Your task to perform on an android device: see tabs open on other devices in the chrome app Image 0: 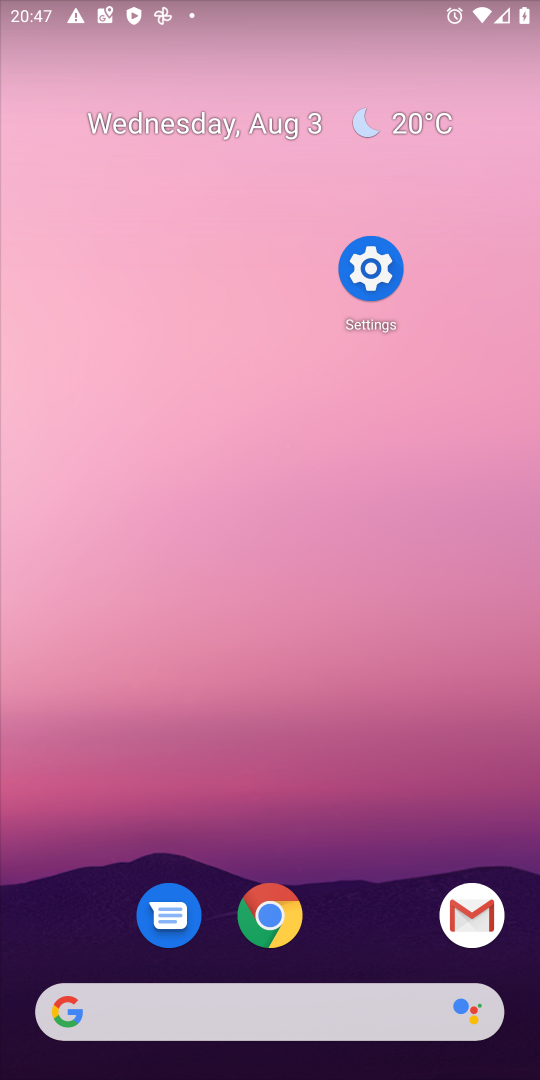
Step 0: press home button
Your task to perform on an android device: see tabs open on other devices in the chrome app Image 1: 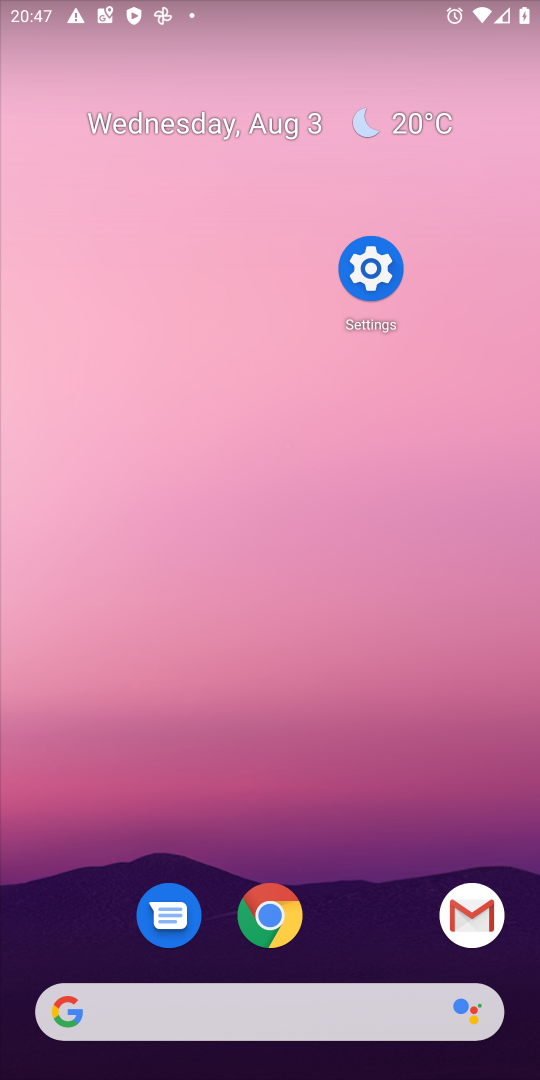
Step 1: drag from (319, 988) to (247, 275)
Your task to perform on an android device: see tabs open on other devices in the chrome app Image 2: 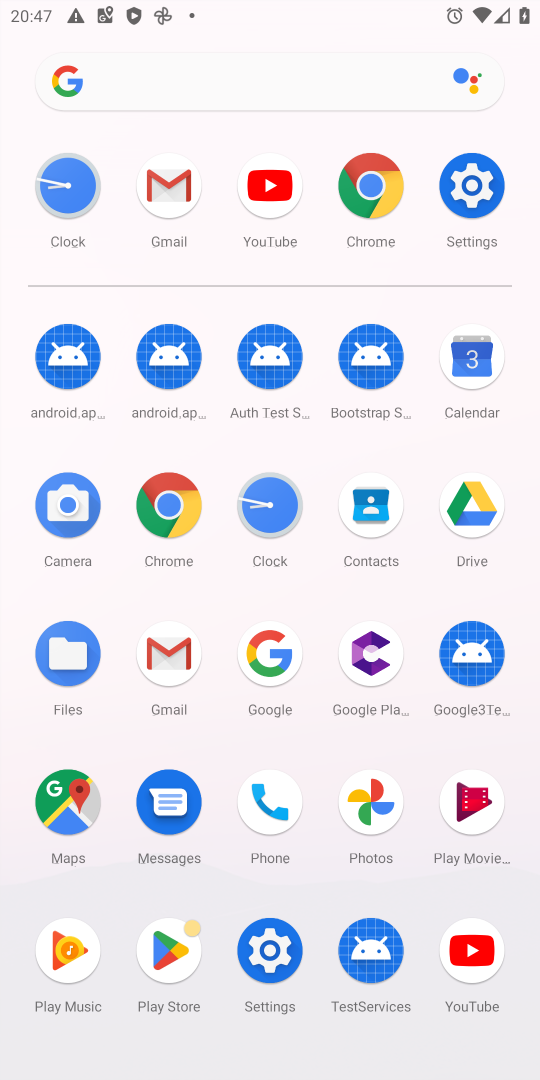
Step 2: click (377, 198)
Your task to perform on an android device: see tabs open on other devices in the chrome app Image 3: 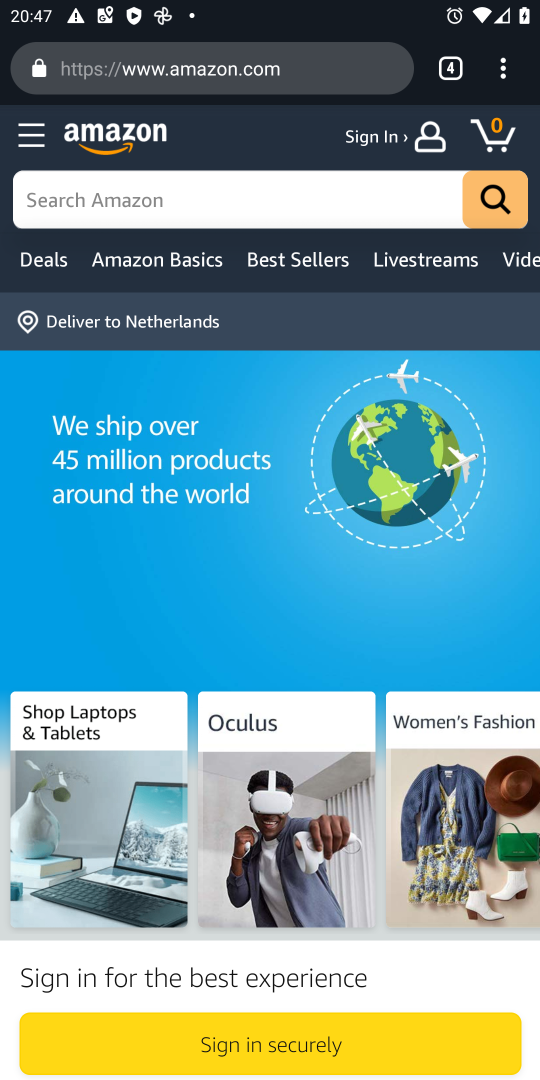
Step 3: click (450, 75)
Your task to perform on an android device: see tabs open on other devices in the chrome app Image 4: 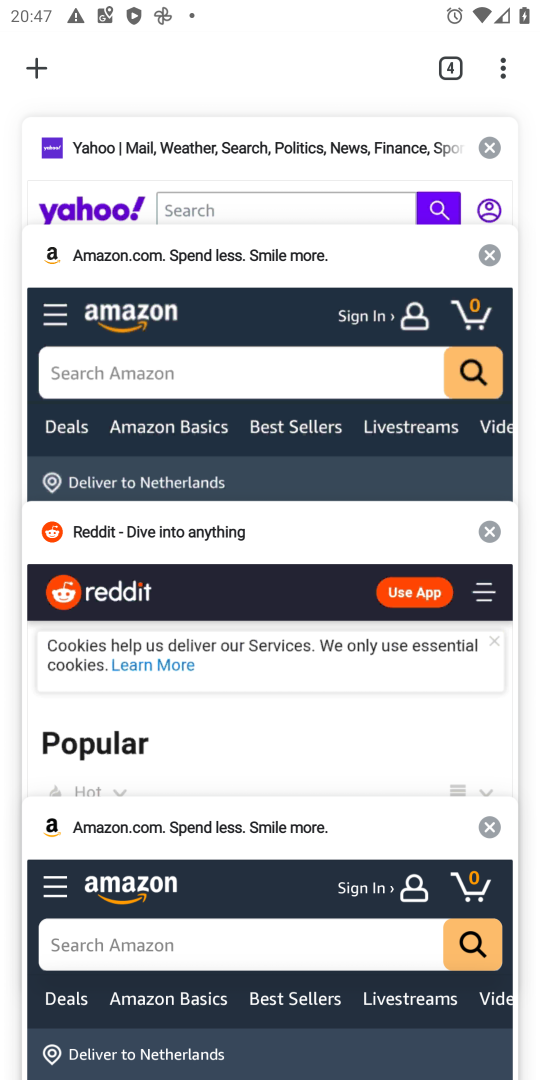
Step 4: click (51, 64)
Your task to perform on an android device: see tabs open on other devices in the chrome app Image 5: 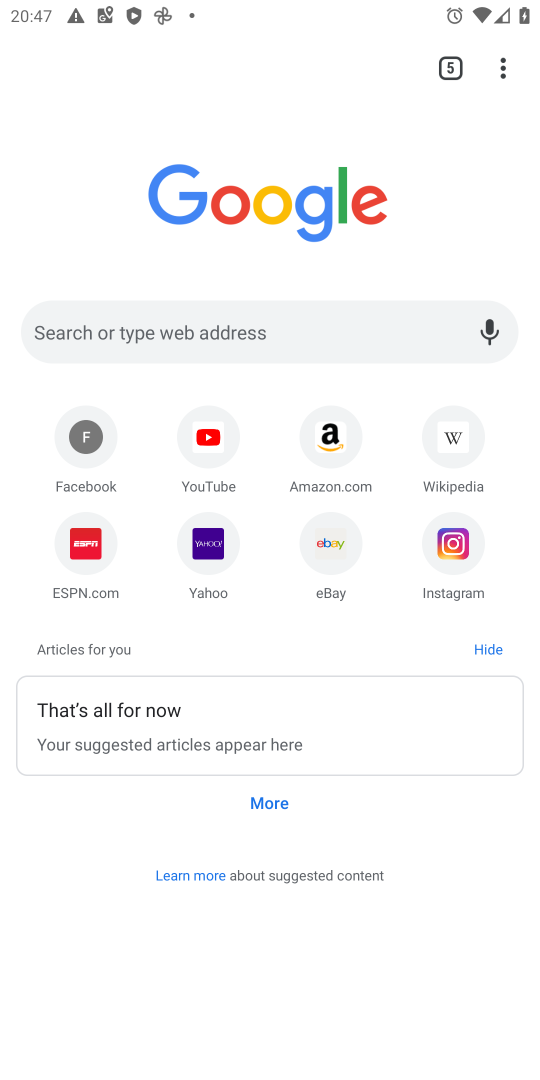
Step 5: task complete